Your task to perform on an android device: open the mobile data screen to see how much data has been used Image 0: 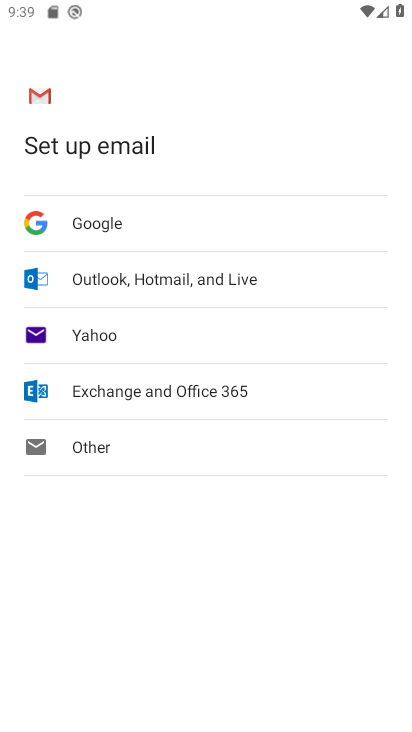
Step 0: press back button
Your task to perform on an android device: open the mobile data screen to see how much data has been used Image 1: 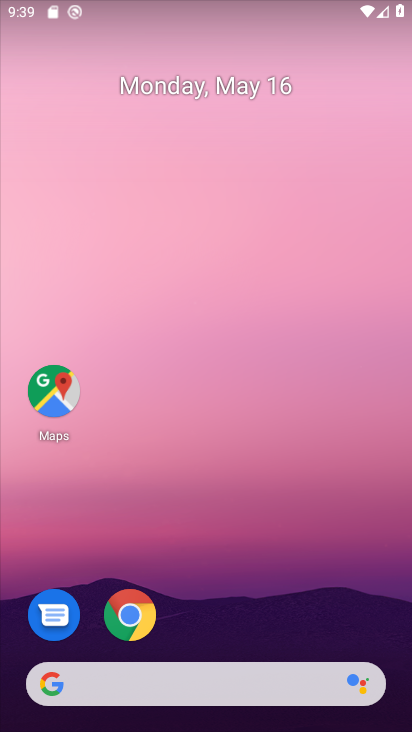
Step 1: drag from (226, 557) to (197, 40)
Your task to perform on an android device: open the mobile data screen to see how much data has been used Image 2: 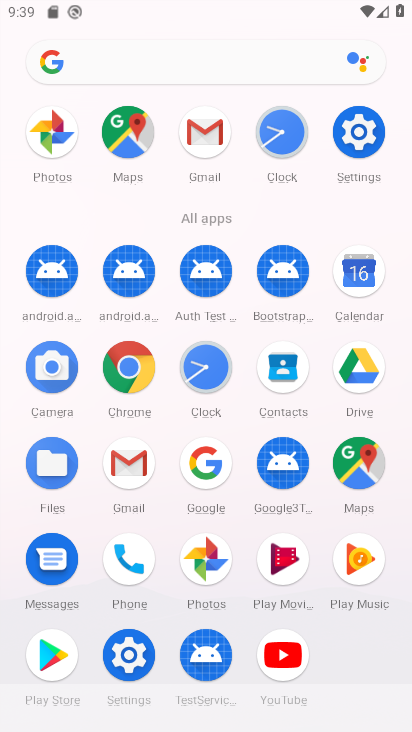
Step 2: drag from (3, 492) to (11, 169)
Your task to perform on an android device: open the mobile data screen to see how much data has been used Image 3: 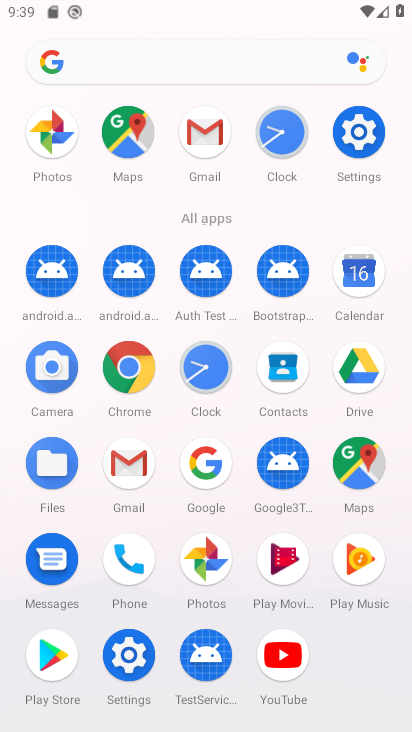
Step 3: click (361, 133)
Your task to perform on an android device: open the mobile data screen to see how much data has been used Image 4: 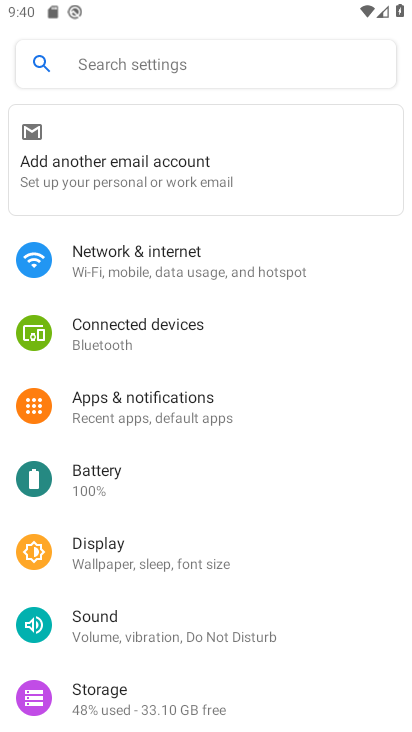
Step 4: click (184, 251)
Your task to perform on an android device: open the mobile data screen to see how much data has been used Image 5: 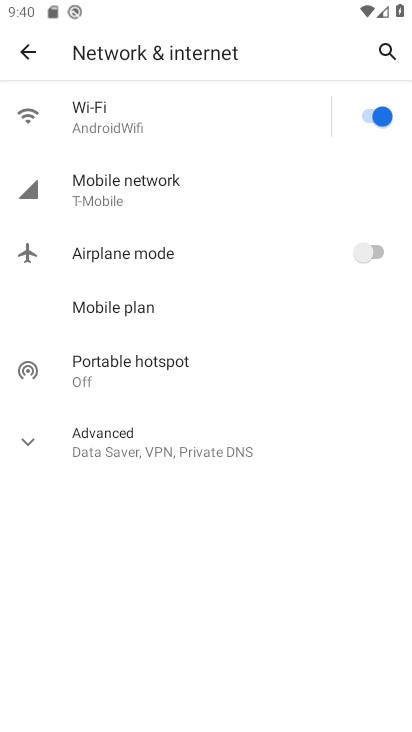
Step 5: click (179, 203)
Your task to perform on an android device: open the mobile data screen to see how much data has been used Image 6: 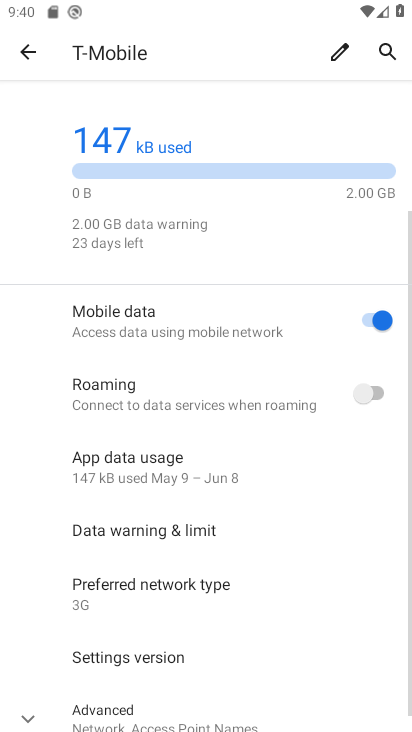
Step 6: task complete